Your task to perform on an android device: Go to display settings Image 0: 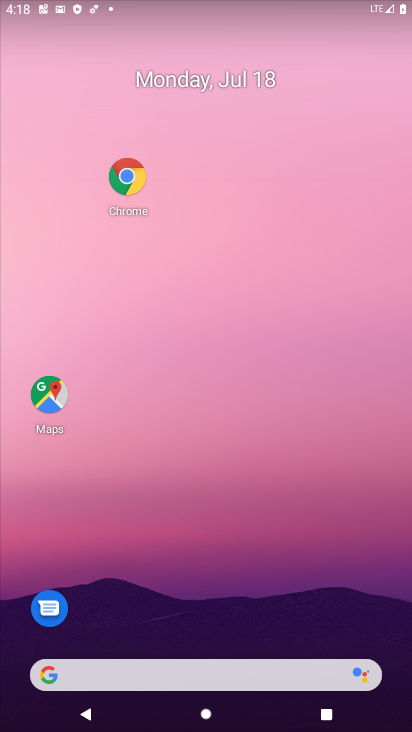
Step 0: drag from (207, 577) to (256, 169)
Your task to perform on an android device: Go to display settings Image 1: 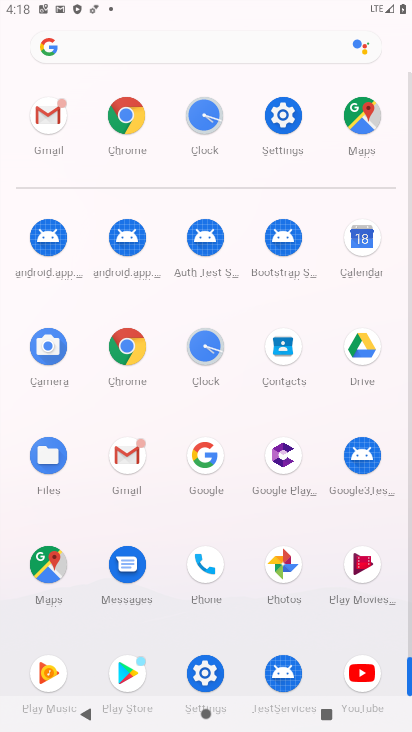
Step 1: click (280, 137)
Your task to perform on an android device: Go to display settings Image 2: 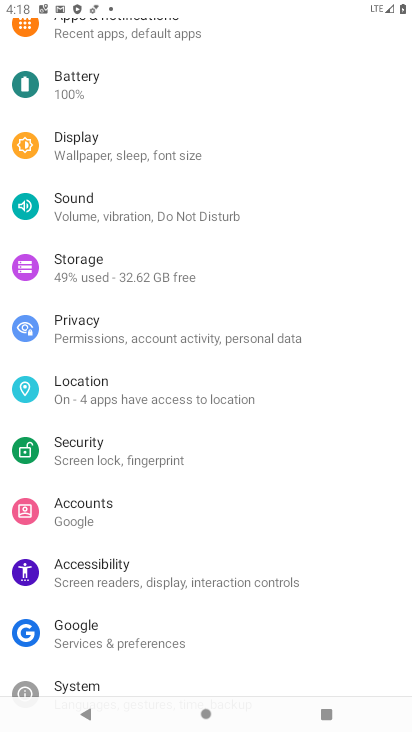
Step 2: click (142, 148)
Your task to perform on an android device: Go to display settings Image 3: 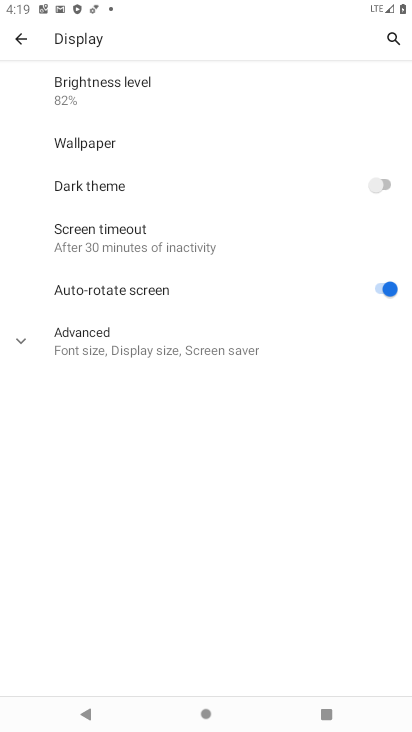
Step 3: click (135, 349)
Your task to perform on an android device: Go to display settings Image 4: 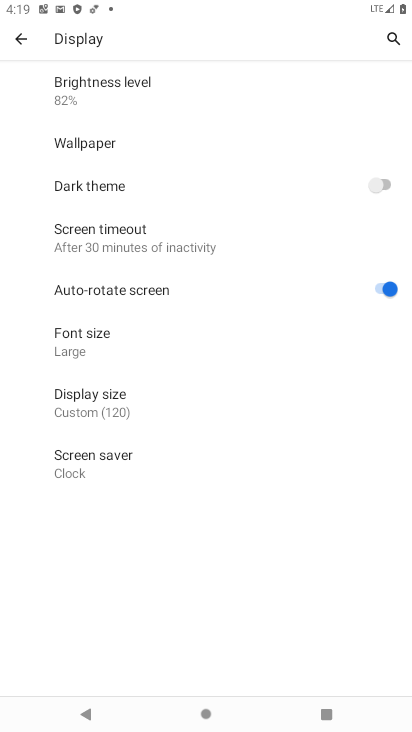
Step 4: task complete